Your task to perform on an android device: Go to network settings Image 0: 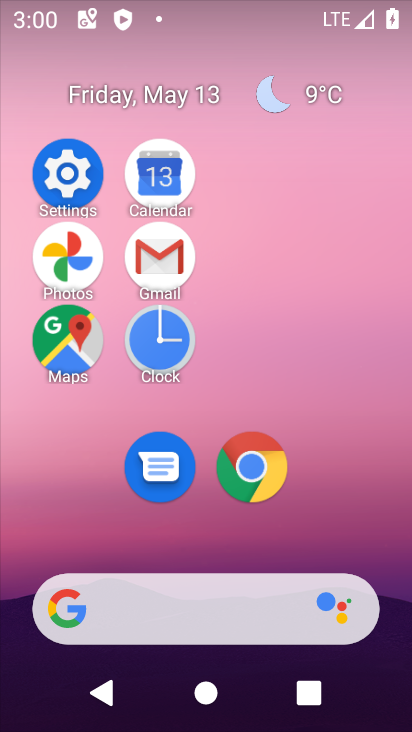
Step 0: click (63, 178)
Your task to perform on an android device: Go to network settings Image 1: 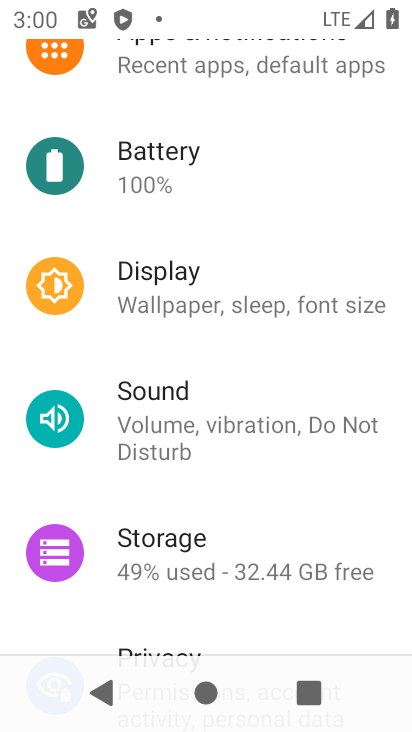
Step 1: drag from (282, 203) to (299, 556)
Your task to perform on an android device: Go to network settings Image 2: 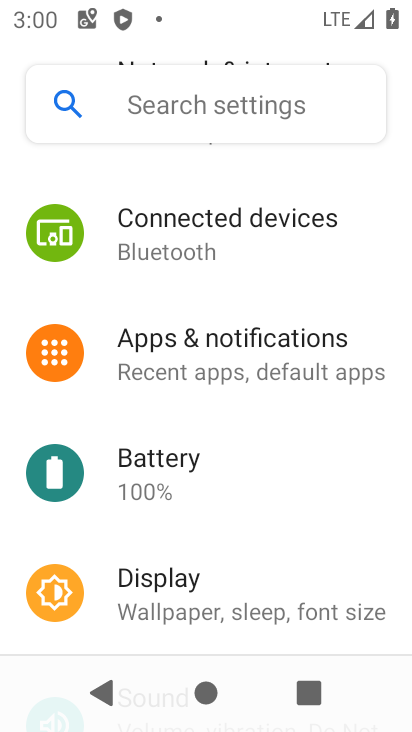
Step 2: drag from (256, 260) to (213, 620)
Your task to perform on an android device: Go to network settings Image 3: 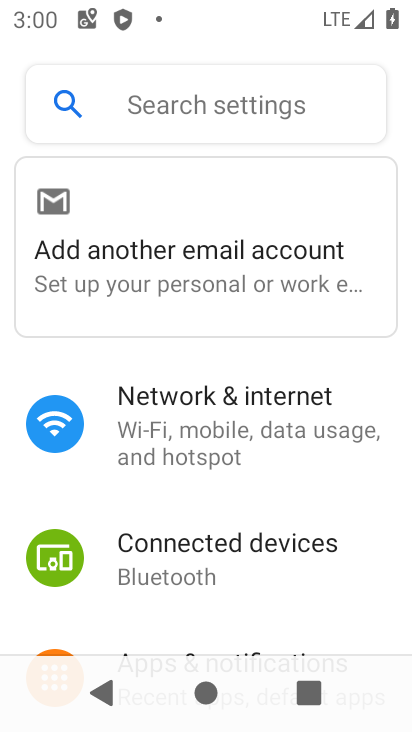
Step 3: click (207, 423)
Your task to perform on an android device: Go to network settings Image 4: 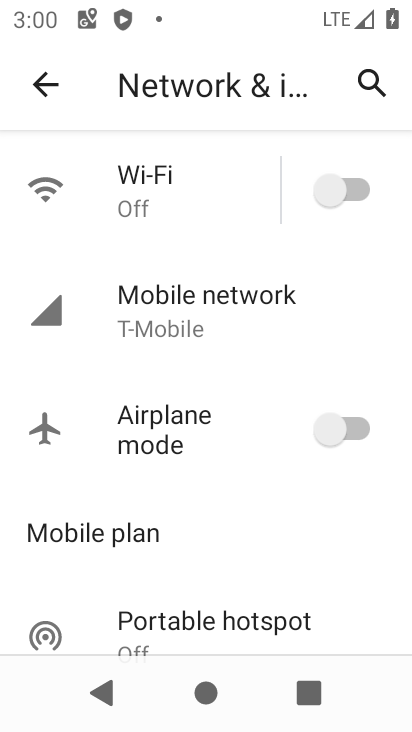
Step 4: click (249, 326)
Your task to perform on an android device: Go to network settings Image 5: 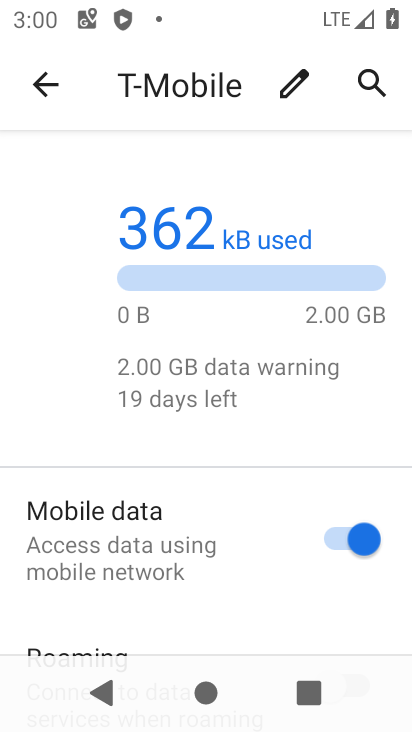
Step 5: task complete